Your task to perform on an android device: find photos in the google photos app Image 0: 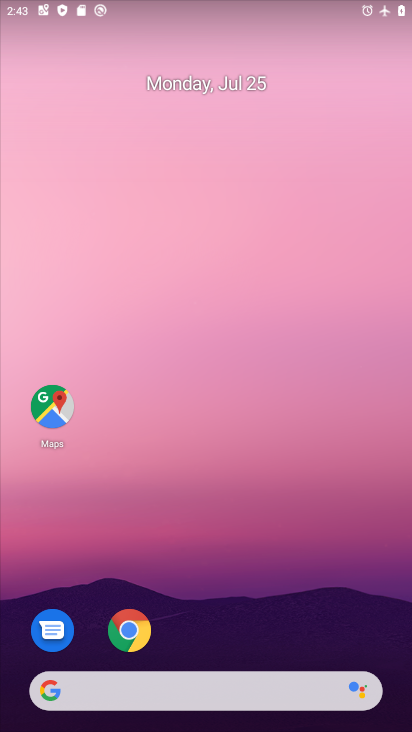
Step 0: drag from (217, 615) to (208, 14)
Your task to perform on an android device: find photos in the google photos app Image 1: 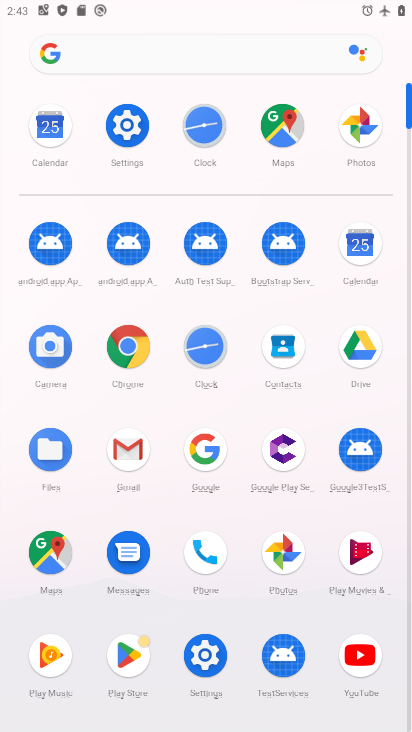
Step 1: click (372, 151)
Your task to perform on an android device: find photos in the google photos app Image 2: 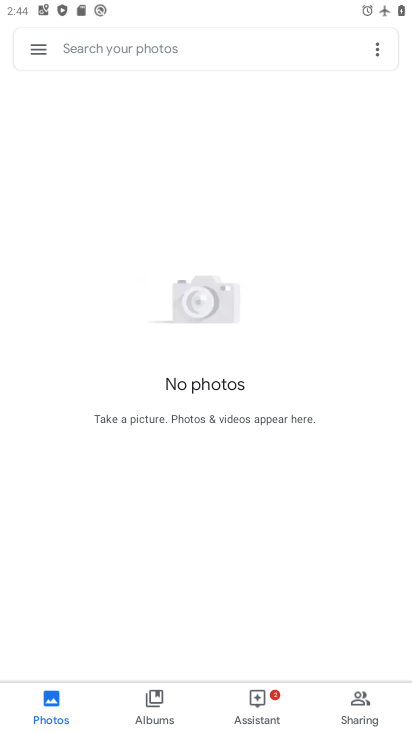
Step 2: task complete